Your task to perform on an android device: change the clock style Image 0: 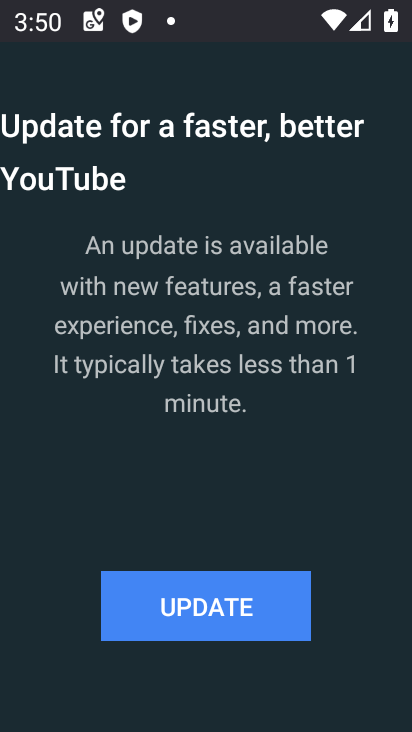
Step 0: press home button
Your task to perform on an android device: change the clock style Image 1: 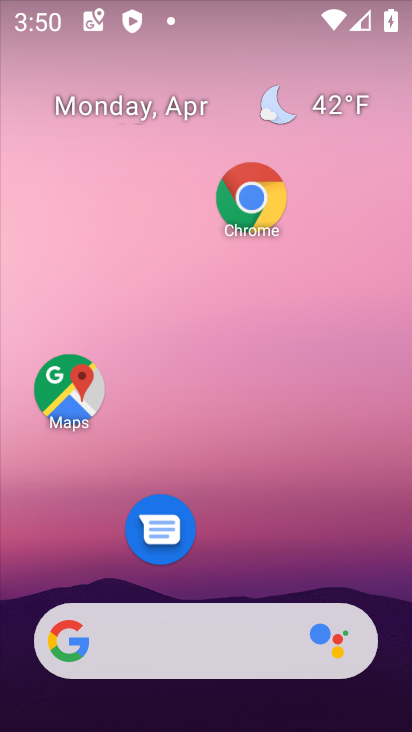
Step 1: drag from (267, 560) to (208, 226)
Your task to perform on an android device: change the clock style Image 2: 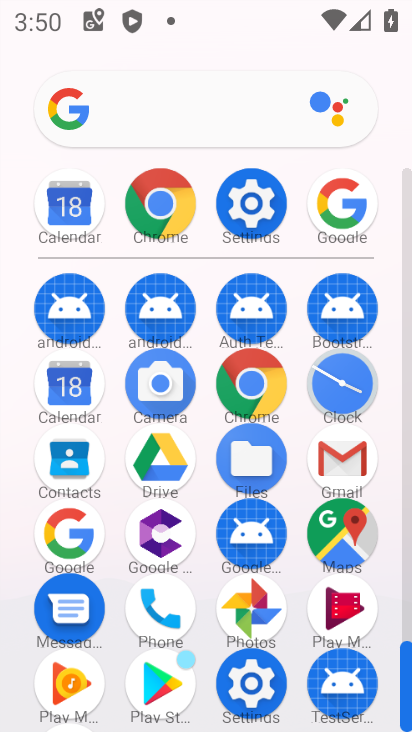
Step 2: click (338, 362)
Your task to perform on an android device: change the clock style Image 3: 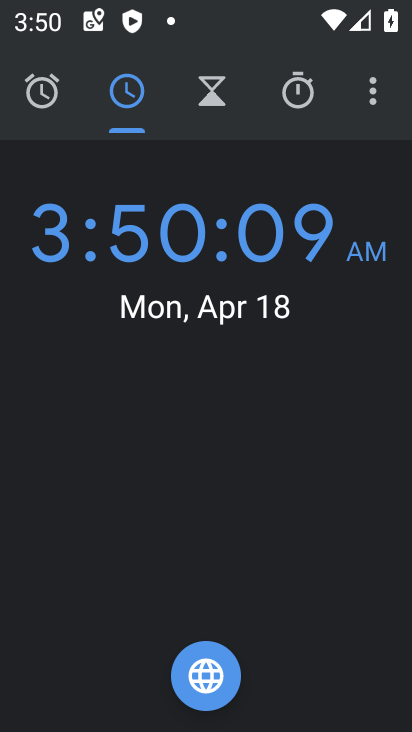
Step 3: click (363, 99)
Your task to perform on an android device: change the clock style Image 4: 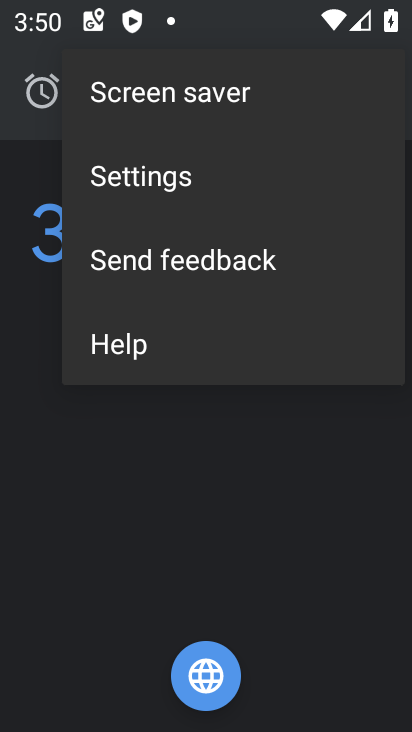
Step 4: click (230, 175)
Your task to perform on an android device: change the clock style Image 5: 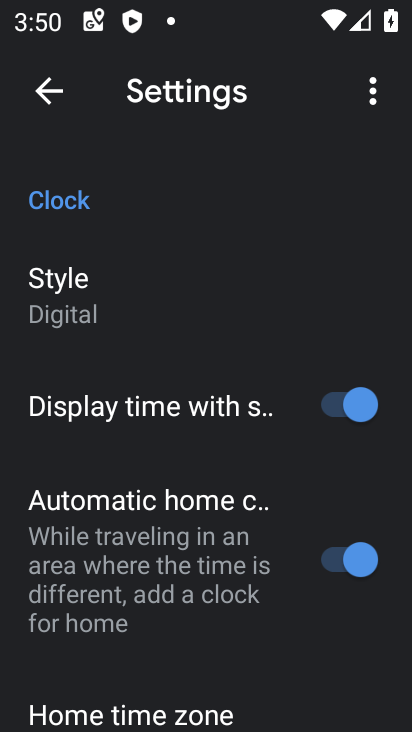
Step 5: click (87, 273)
Your task to perform on an android device: change the clock style Image 6: 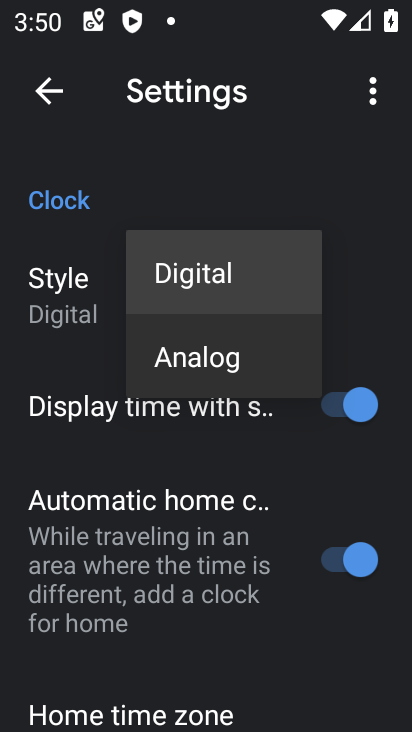
Step 6: click (213, 356)
Your task to perform on an android device: change the clock style Image 7: 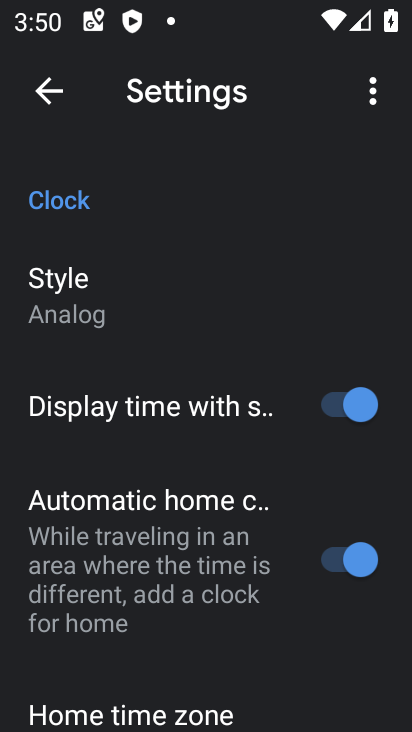
Step 7: task complete